Your task to perform on an android device: Search for sushi restaurants on Maps Image 0: 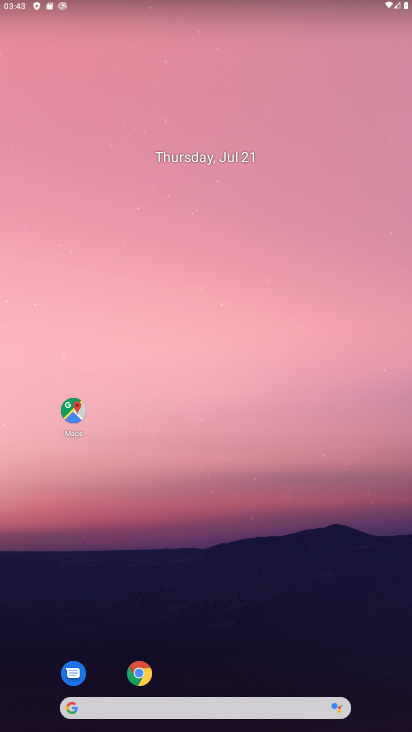
Step 0: drag from (302, 654) to (287, 53)
Your task to perform on an android device: Search for sushi restaurants on Maps Image 1: 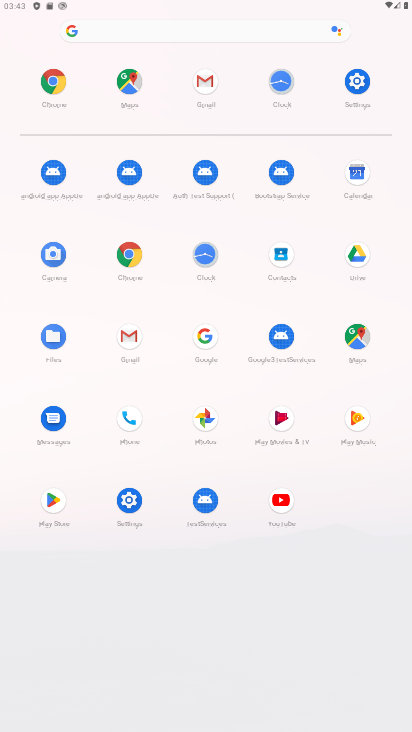
Step 1: click (356, 331)
Your task to perform on an android device: Search for sushi restaurants on Maps Image 2: 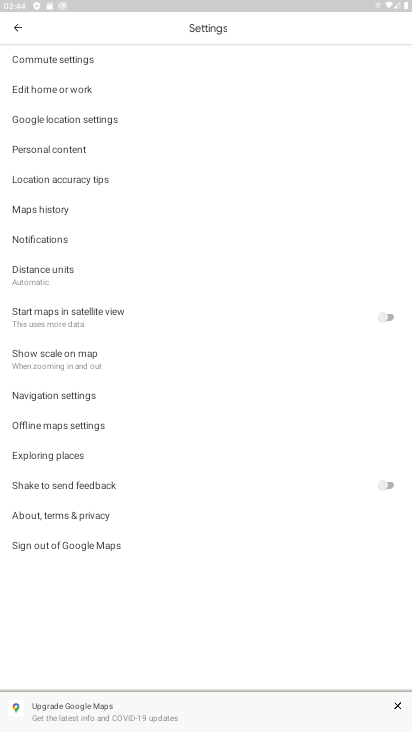
Step 2: click (15, 25)
Your task to perform on an android device: Search for sushi restaurants on Maps Image 3: 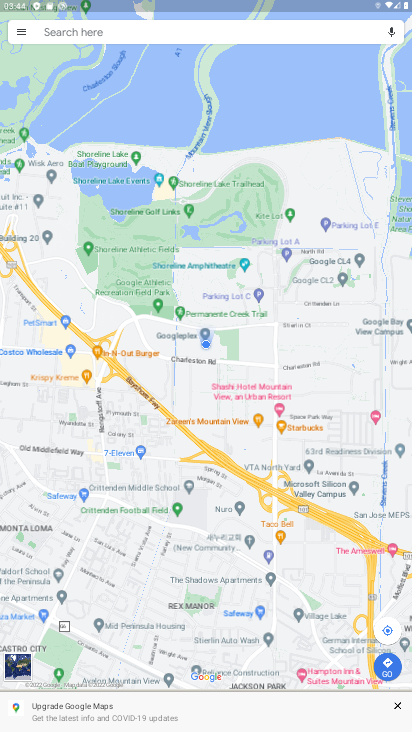
Step 3: click (99, 35)
Your task to perform on an android device: Search for sushi restaurants on Maps Image 4: 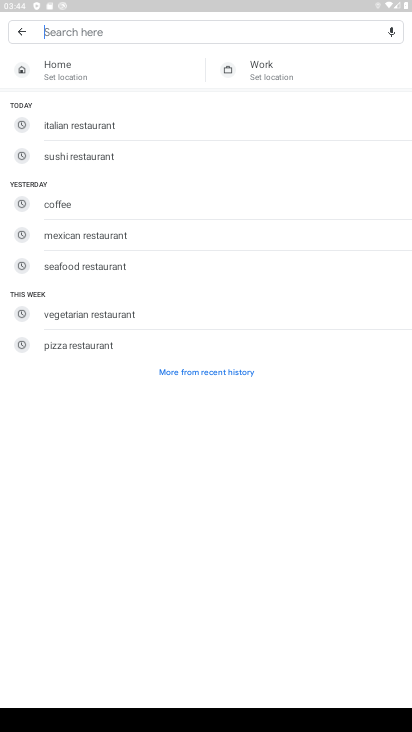
Step 4: click (102, 157)
Your task to perform on an android device: Search for sushi restaurants on Maps Image 5: 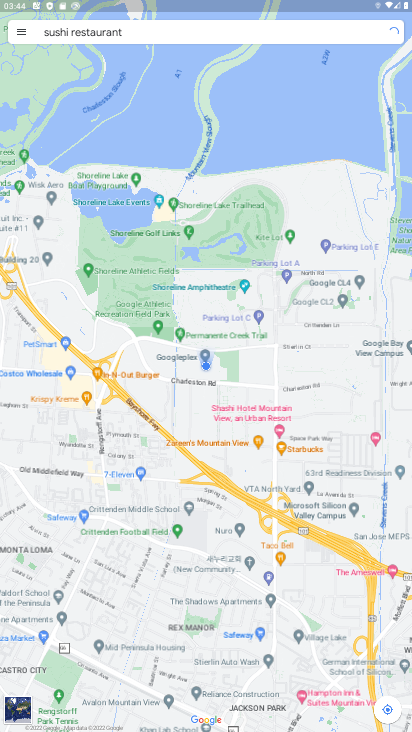
Step 5: type ""
Your task to perform on an android device: Search for sushi restaurants on Maps Image 6: 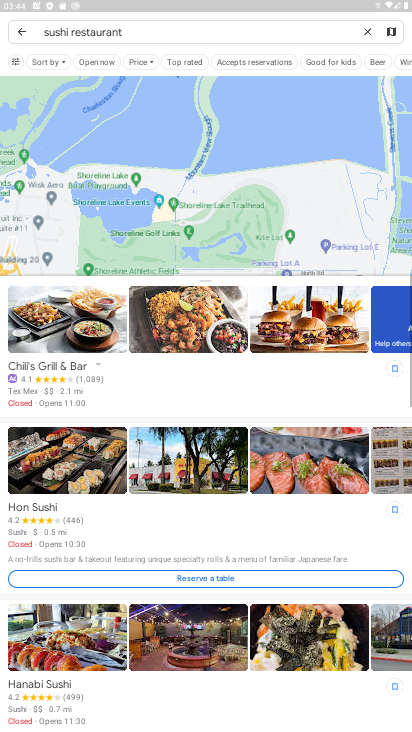
Step 6: click (177, 28)
Your task to perform on an android device: Search for sushi restaurants on Maps Image 7: 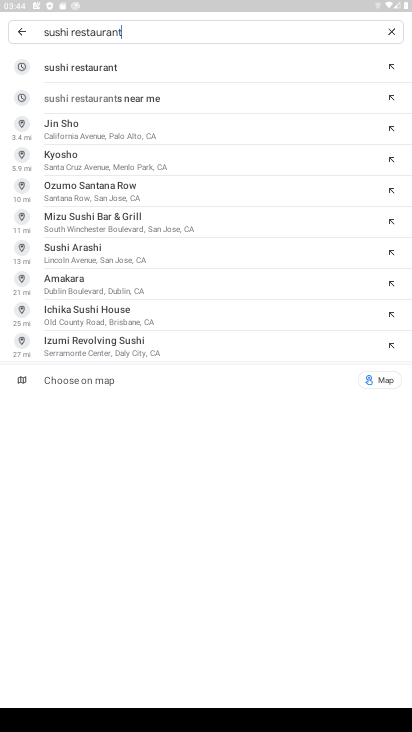
Step 7: type "s"
Your task to perform on an android device: Search for sushi restaurants on Maps Image 8: 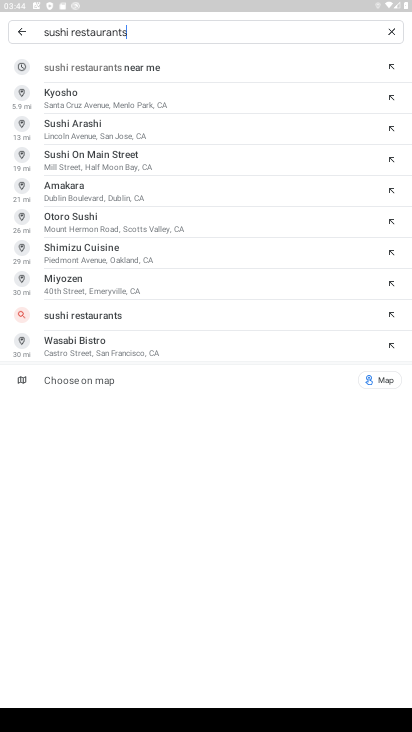
Step 8: press enter
Your task to perform on an android device: Search for sushi restaurants on Maps Image 9: 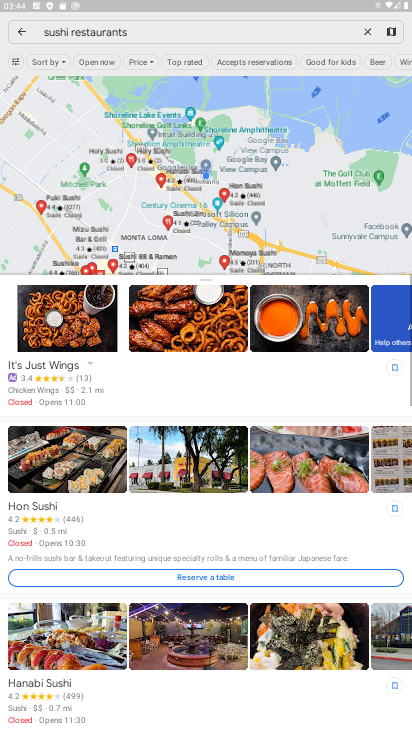
Step 9: task complete